Your task to perform on an android device: Go to privacy settings Image 0: 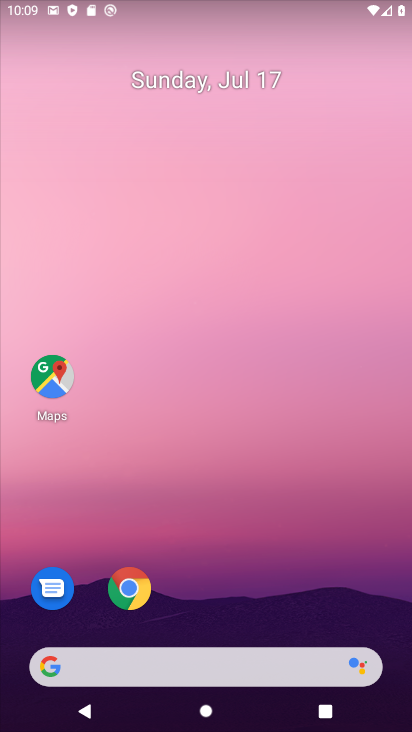
Step 0: press home button
Your task to perform on an android device: Go to privacy settings Image 1: 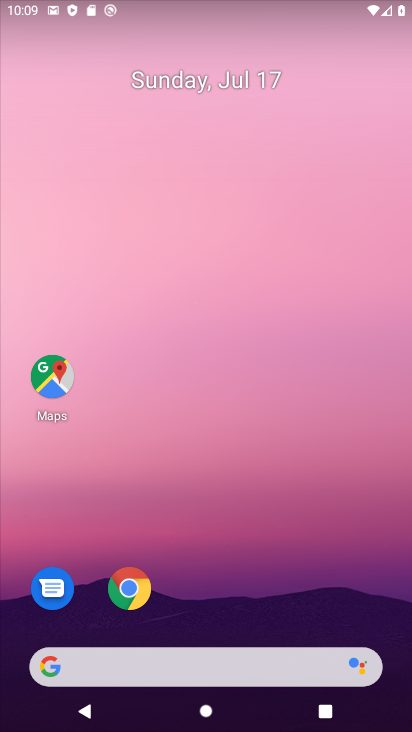
Step 1: drag from (290, 586) to (332, 0)
Your task to perform on an android device: Go to privacy settings Image 2: 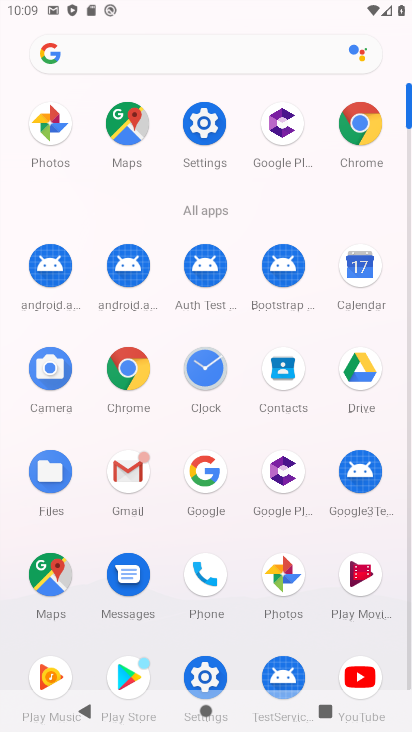
Step 2: click (205, 685)
Your task to perform on an android device: Go to privacy settings Image 3: 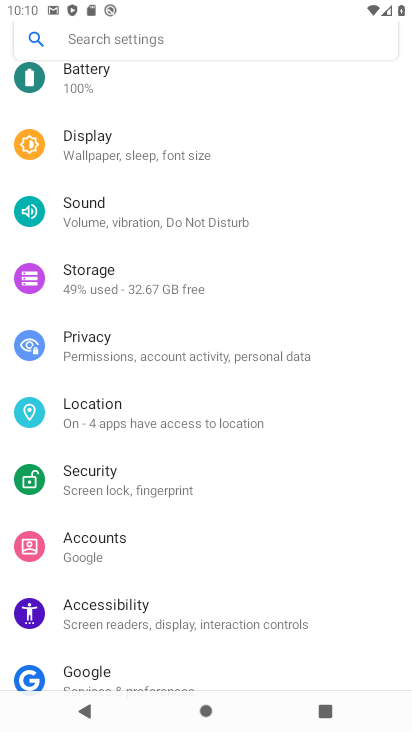
Step 3: press home button
Your task to perform on an android device: Go to privacy settings Image 4: 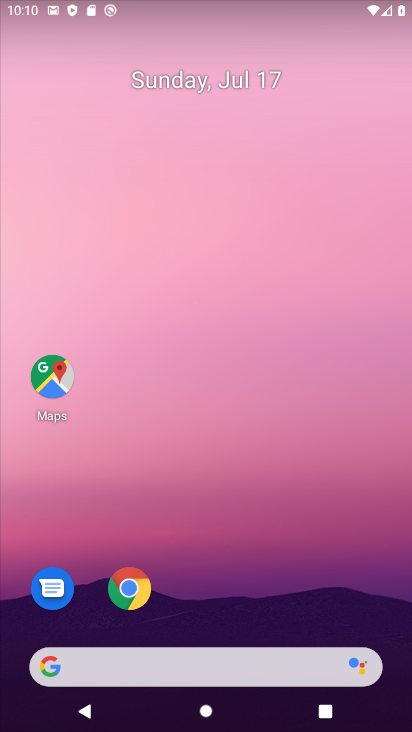
Step 4: drag from (312, 525) to (381, 2)
Your task to perform on an android device: Go to privacy settings Image 5: 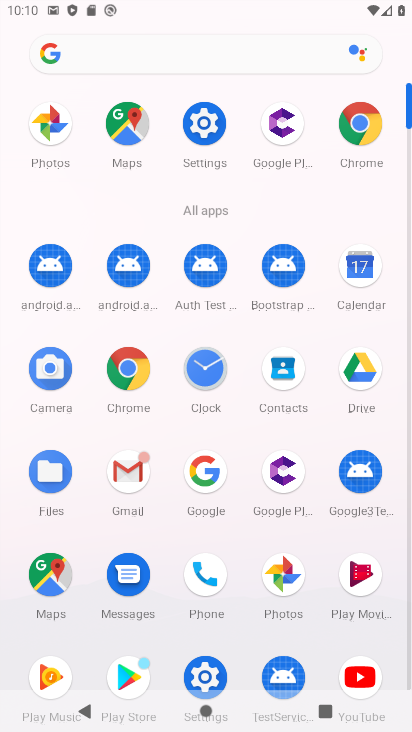
Step 5: click (217, 672)
Your task to perform on an android device: Go to privacy settings Image 6: 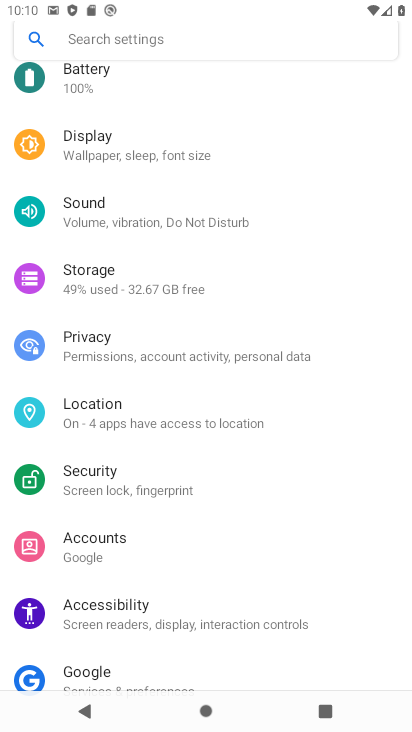
Step 6: click (141, 349)
Your task to perform on an android device: Go to privacy settings Image 7: 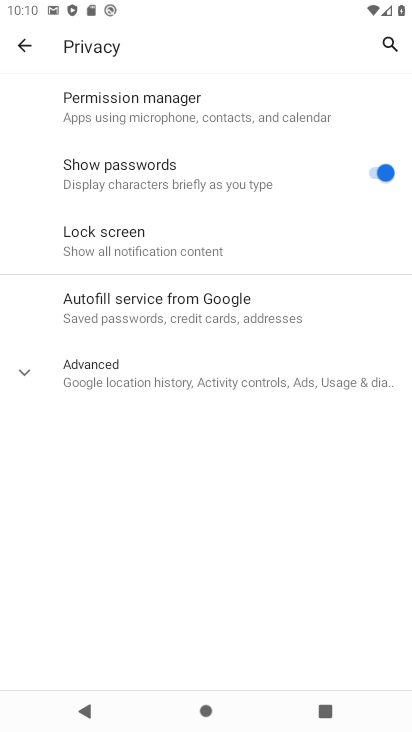
Step 7: task complete